Your task to perform on an android device: make emails show in primary in the gmail app Image 0: 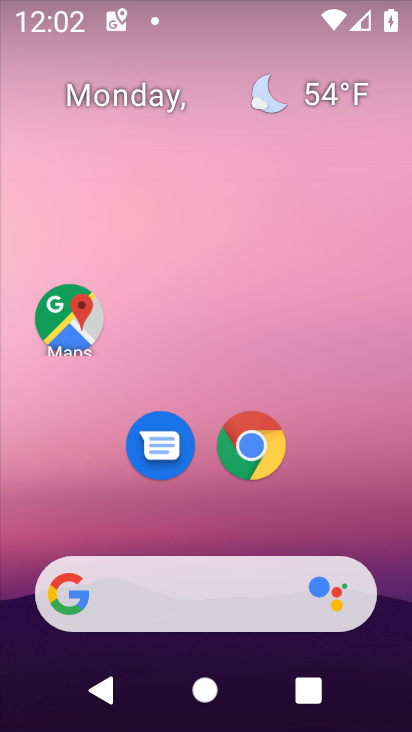
Step 0: drag from (391, 509) to (371, 92)
Your task to perform on an android device: make emails show in primary in the gmail app Image 1: 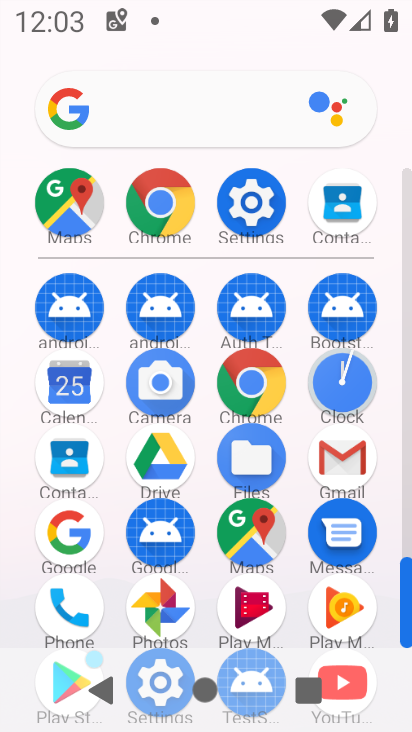
Step 1: click (351, 474)
Your task to perform on an android device: make emails show in primary in the gmail app Image 2: 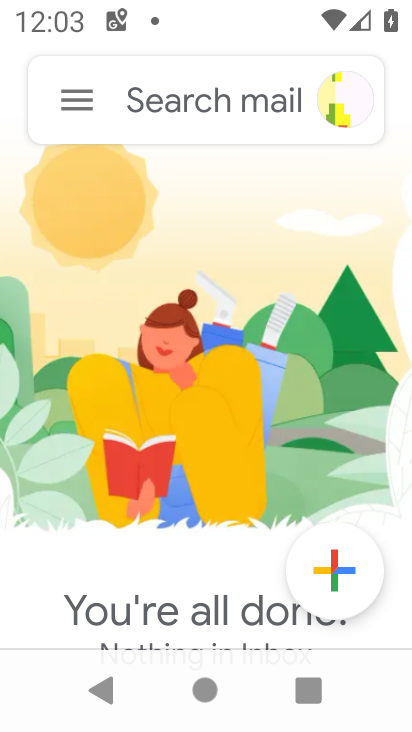
Step 2: click (74, 79)
Your task to perform on an android device: make emails show in primary in the gmail app Image 3: 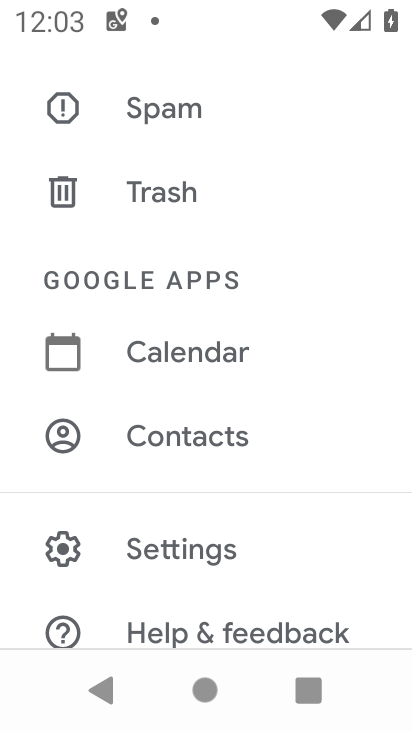
Step 3: drag from (190, 179) to (207, 574)
Your task to perform on an android device: make emails show in primary in the gmail app Image 4: 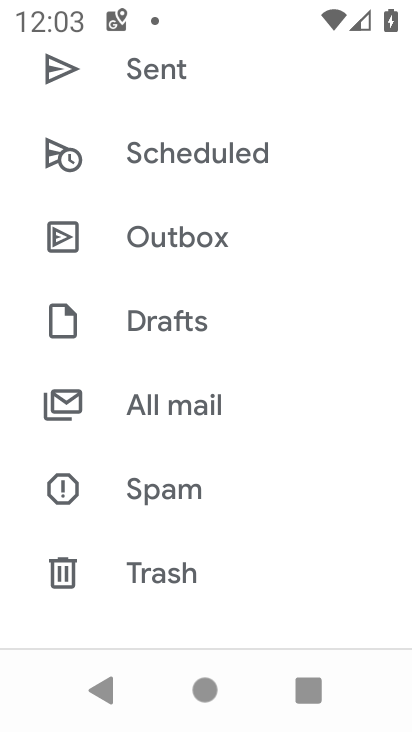
Step 4: drag from (255, 200) to (289, 588)
Your task to perform on an android device: make emails show in primary in the gmail app Image 5: 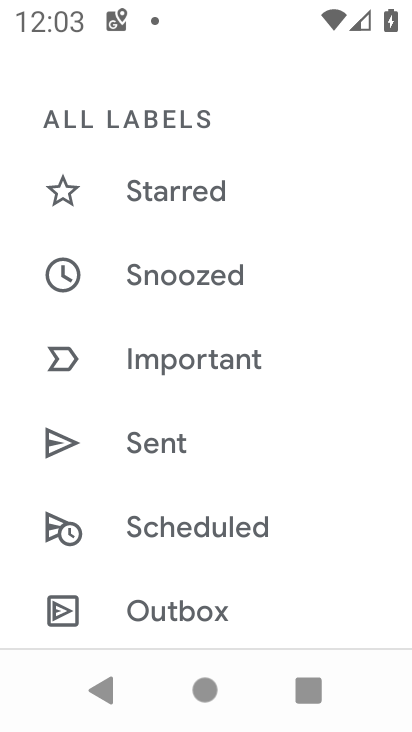
Step 5: drag from (257, 304) to (271, 607)
Your task to perform on an android device: make emails show in primary in the gmail app Image 6: 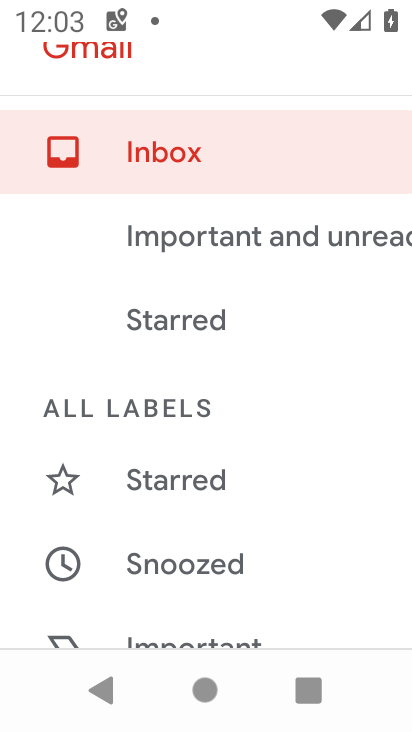
Step 6: drag from (293, 533) to (274, 220)
Your task to perform on an android device: make emails show in primary in the gmail app Image 7: 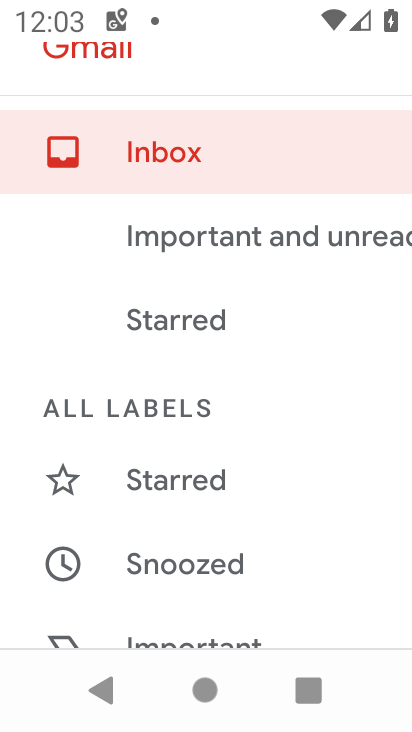
Step 7: drag from (296, 625) to (255, 264)
Your task to perform on an android device: make emails show in primary in the gmail app Image 8: 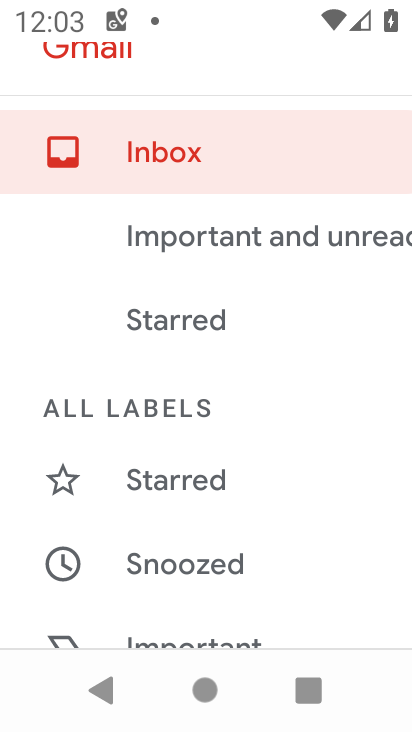
Step 8: drag from (225, 625) to (269, 238)
Your task to perform on an android device: make emails show in primary in the gmail app Image 9: 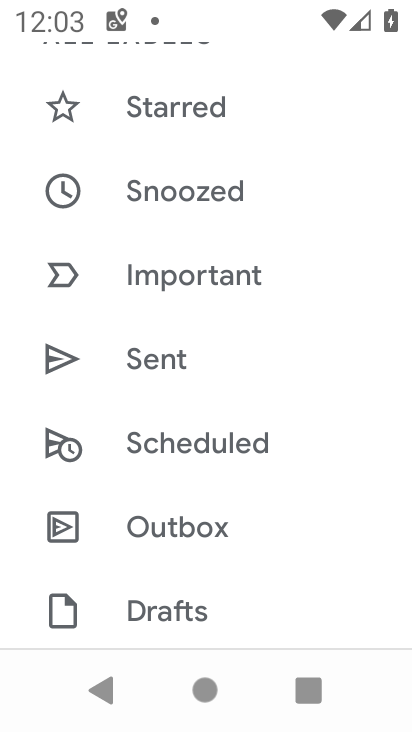
Step 9: drag from (236, 543) to (258, 182)
Your task to perform on an android device: make emails show in primary in the gmail app Image 10: 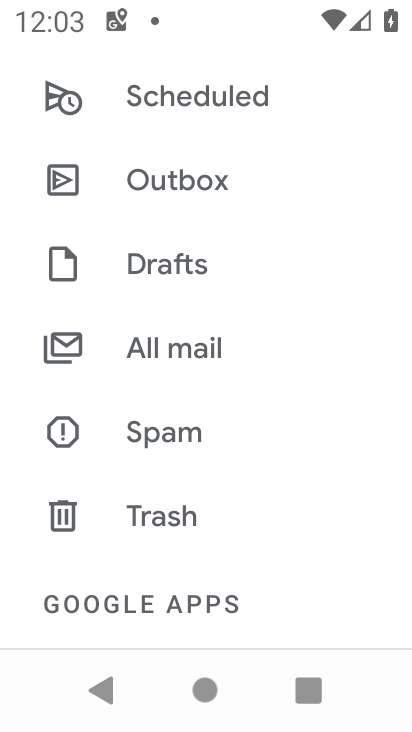
Step 10: drag from (184, 565) to (287, 116)
Your task to perform on an android device: make emails show in primary in the gmail app Image 11: 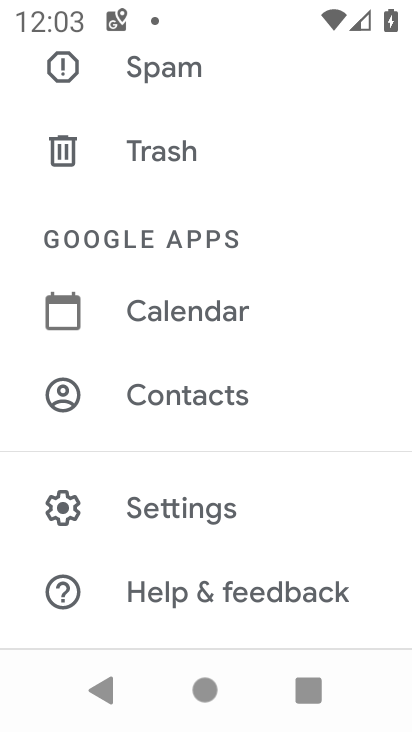
Step 11: click (163, 516)
Your task to perform on an android device: make emails show in primary in the gmail app Image 12: 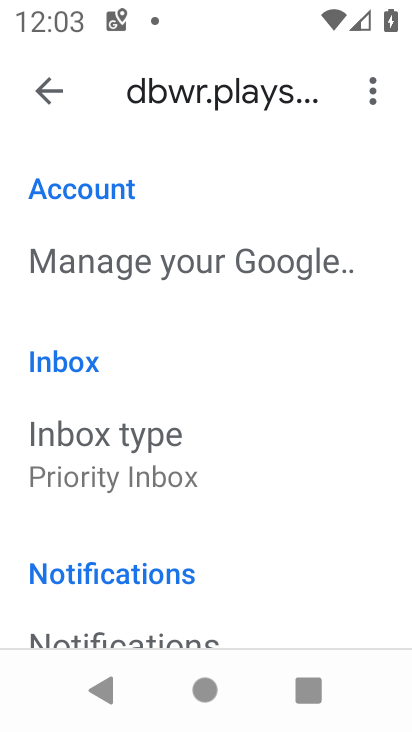
Step 12: drag from (171, 525) to (233, 205)
Your task to perform on an android device: make emails show in primary in the gmail app Image 13: 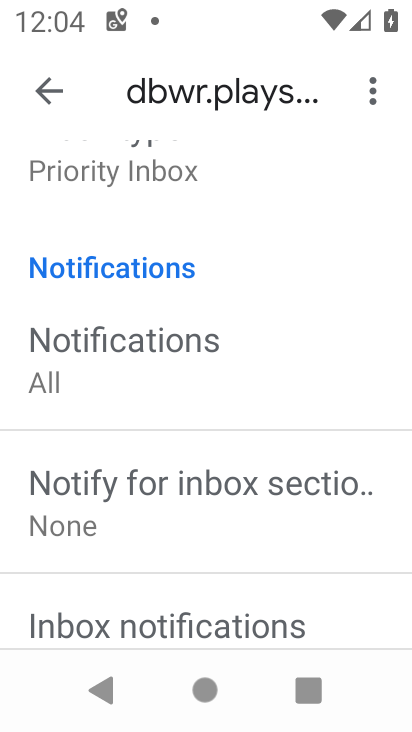
Step 13: click (159, 180)
Your task to perform on an android device: make emails show in primary in the gmail app Image 14: 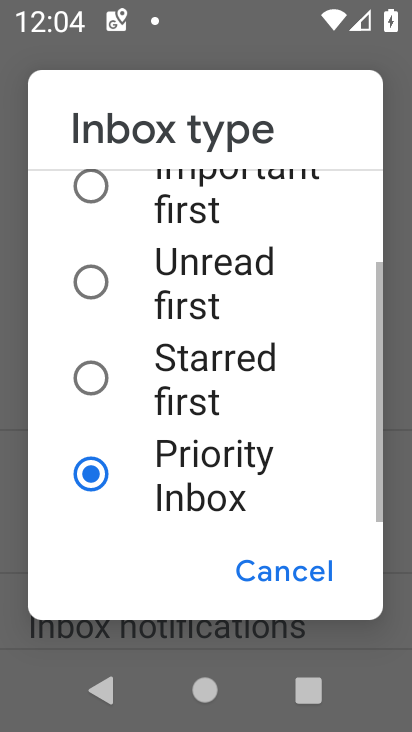
Step 14: drag from (144, 193) to (173, 551)
Your task to perform on an android device: make emails show in primary in the gmail app Image 15: 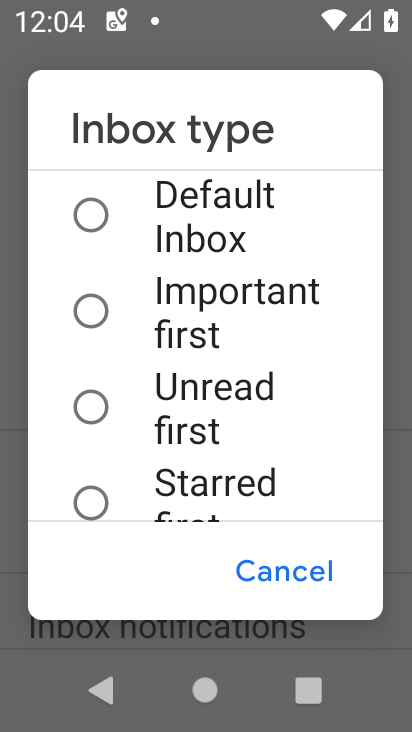
Step 15: click (83, 219)
Your task to perform on an android device: make emails show in primary in the gmail app Image 16: 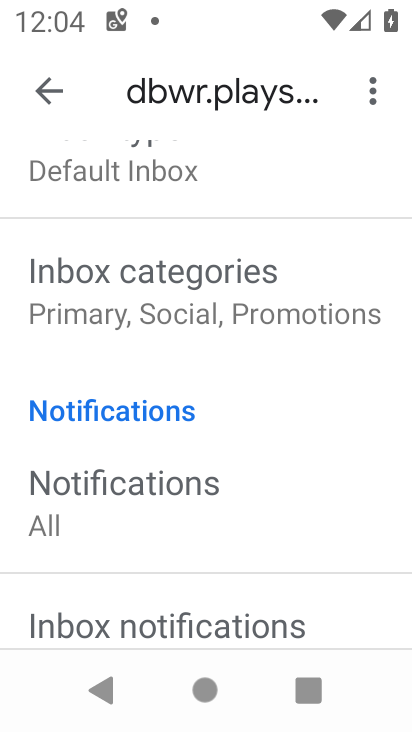
Step 16: task complete